Your task to perform on an android device: Toggle the flashlight Image 0: 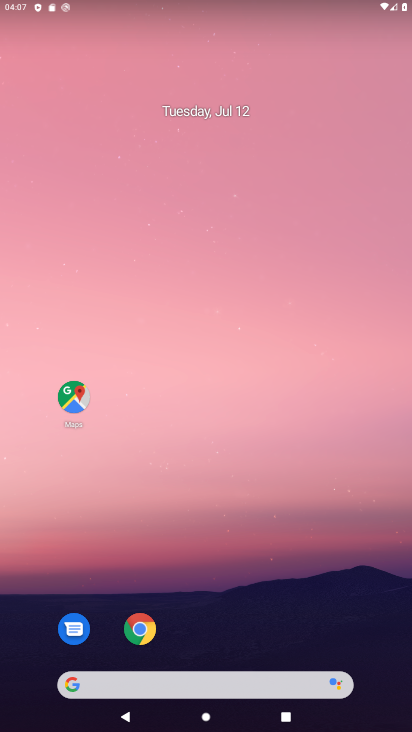
Step 0: drag from (289, 595) to (207, 127)
Your task to perform on an android device: Toggle the flashlight Image 1: 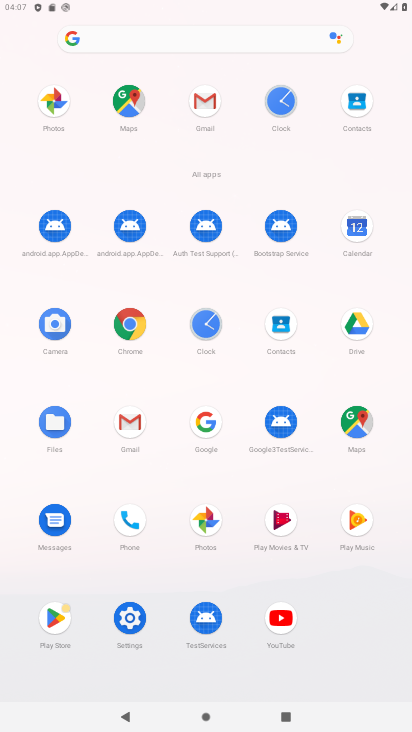
Step 1: click (128, 624)
Your task to perform on an android device: Toggle the flashlight Image 2: 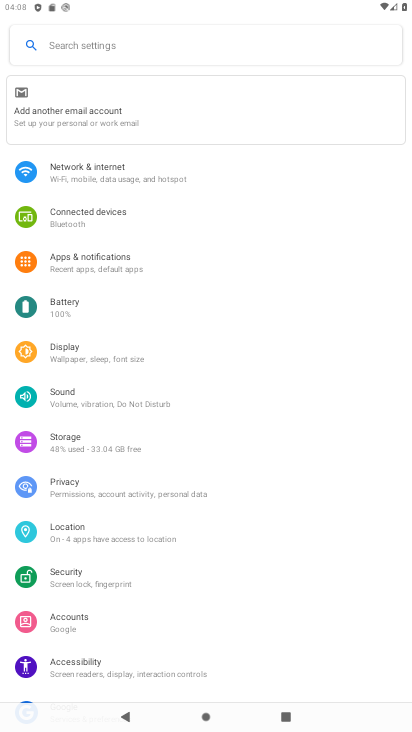
Step 2: click (78, 350)
Your task to perform on an android device: Toggle the flashlight Image 3: 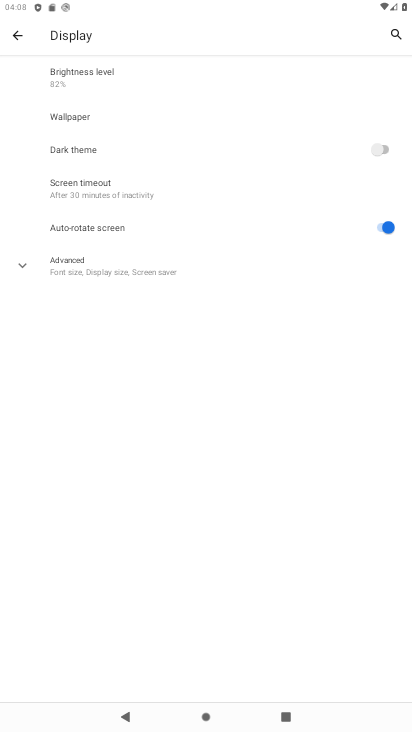
Step 3: task complete